Your task to perform on an android device: Open settings Image 0: 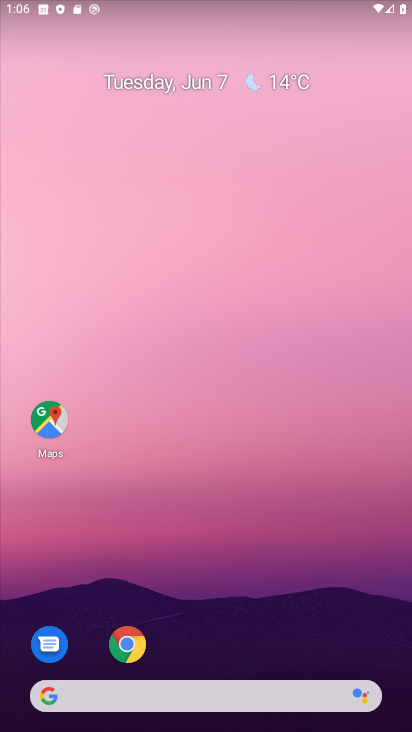
Step 0: drag from (137, 723) to (150, 147)
Your task to perform on an android device: Open settings Image 1: 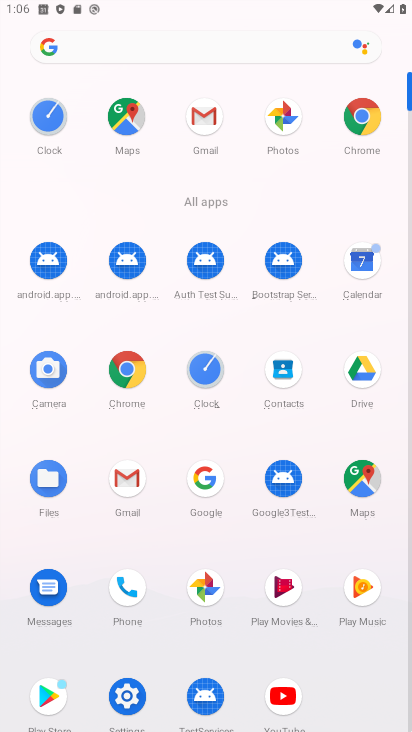
Step 1: click (138, 682)
Your task to perform on an android device: Open settings Image 2: 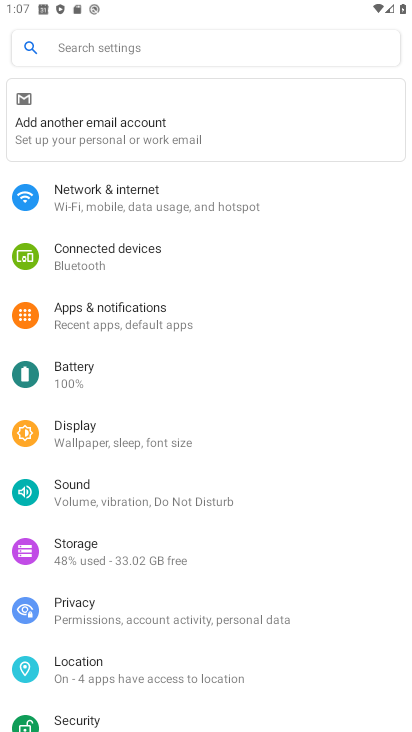
Step 2: task complete